Your task to perform on an android device: make emails show in primary in the gmail app Image 0: 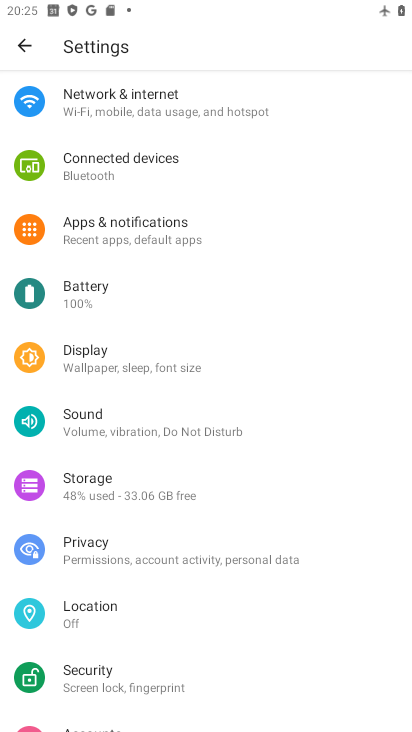
Step 0: press home button
Your task to perform on an android device: make emails show in primary in the gmail app Image 1: 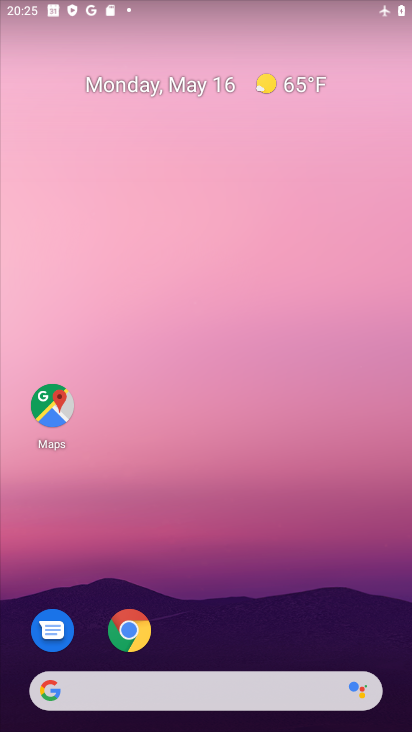
Step 1: drag from (231, 631) to (271, 258)
Your task to perform on an android device: make emails show in primary in the gmail app Image 2: 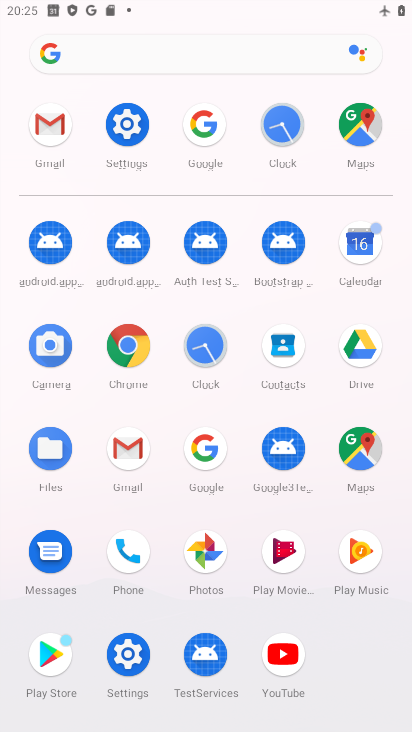
Step 2: click (54, 124)
Your task to perform on an android device: make emails show in primary in the gmail app Image 3: 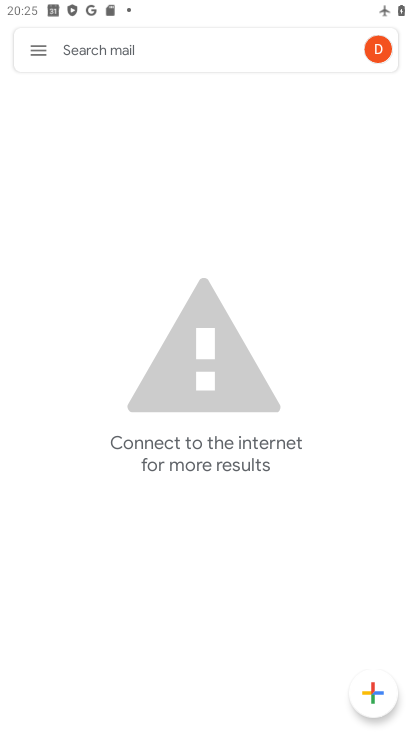
Step 3: click (45, 48)
Your task to perform on an android device: make emails show in primary in the gmail app Image 4: 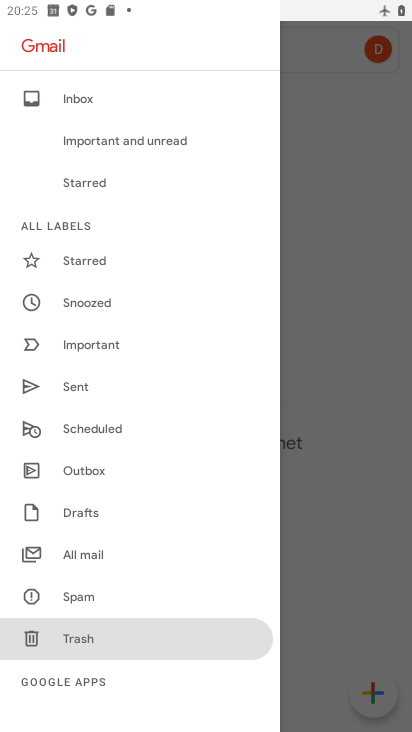
Step 4: drag from (139, 637) to (220, 285)
Your task to perform on an android device: make emails show in primary in the gmail app Image 5: 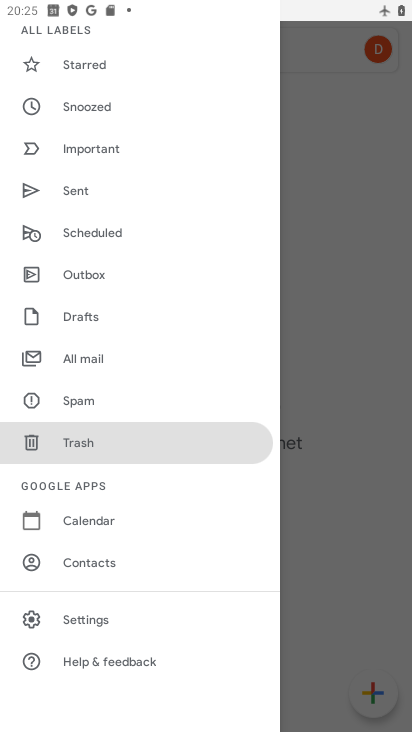
Step 5: click (77, 618)
Your task to perform on an android device: make emails show in primary in the gmail app Image 6: 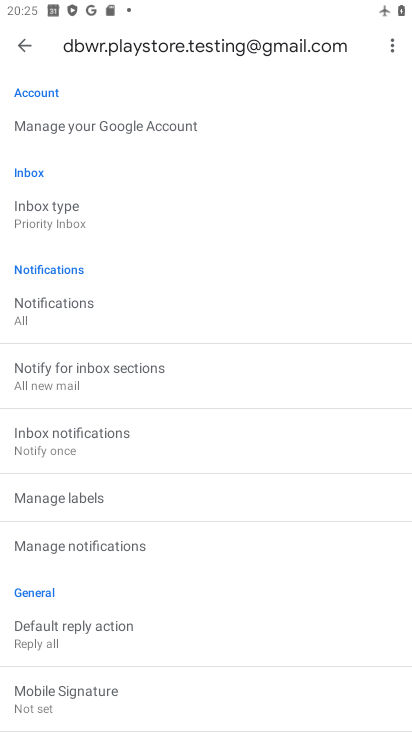
Step 6: drag from (146, 242) to (162, 370)
Your task to perform on an android device: make emails show in primary in the gmail app Image 7: 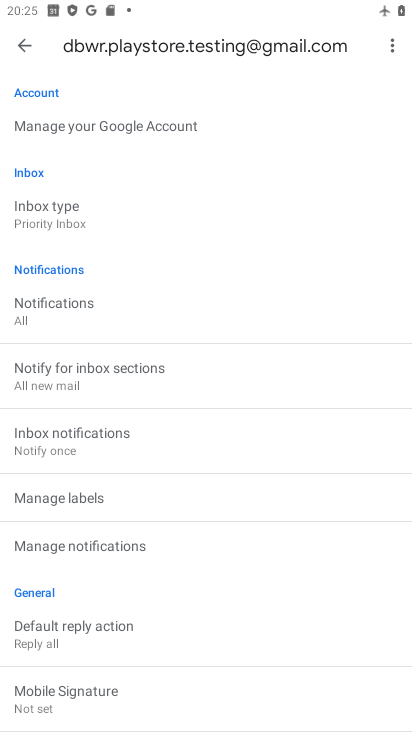
Step 7: click (88, 224)
Your task to perform on an android device: make emails show in primary in the gmail app Image 8: 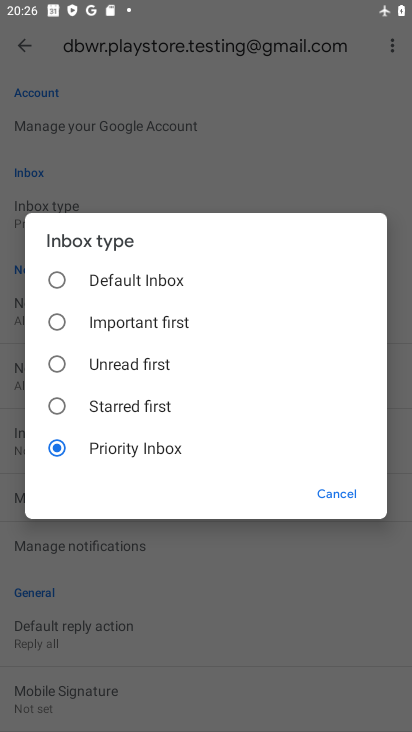
Step 8: click (138, 278)
Your task to perform on an android device: make emails show in primary in the gmail app Image 9: 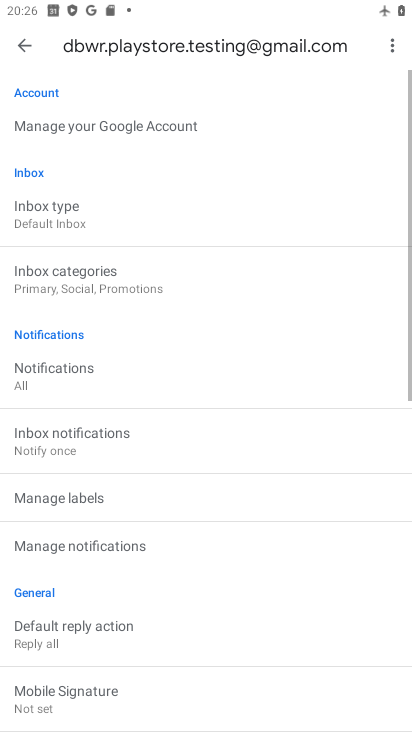
Step 9: task complete